Your task to perform on an android device: Open Google Maps and go to "Timeline" Image 0: 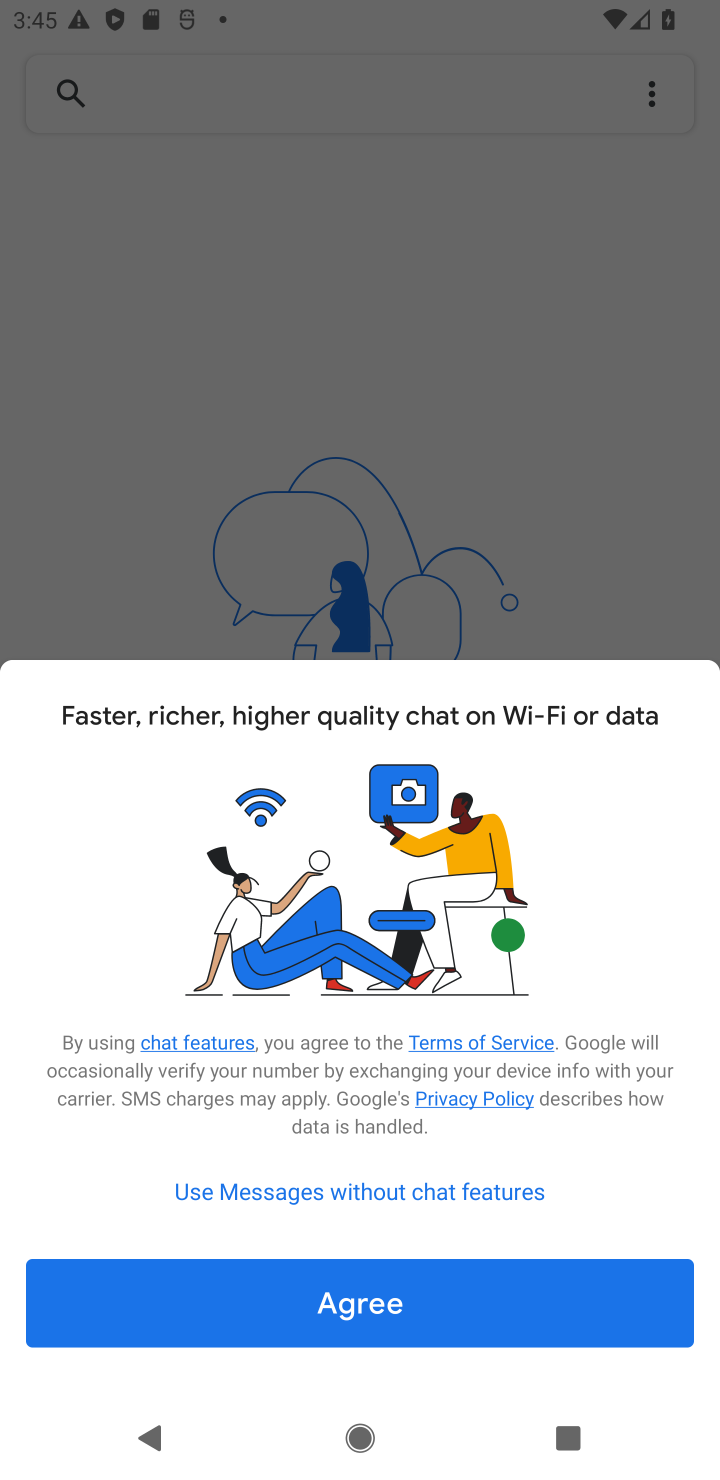
Step 0: press back button
Your task to perform on an android device: Open Google Maps and go to "Timeline" Image 1: 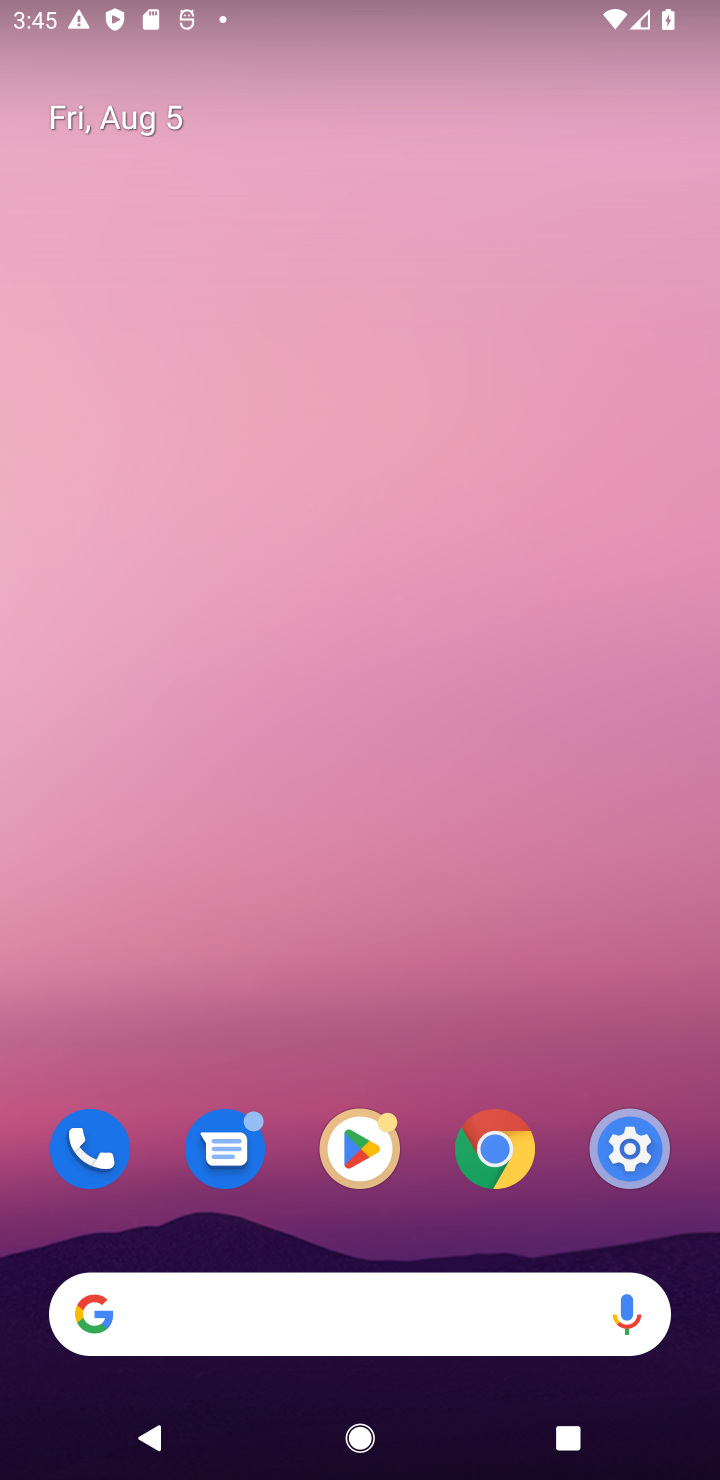
Step 1: press back button
Your task to perform on an android device: Open Google Maps and go to "Timeline" Image 2: 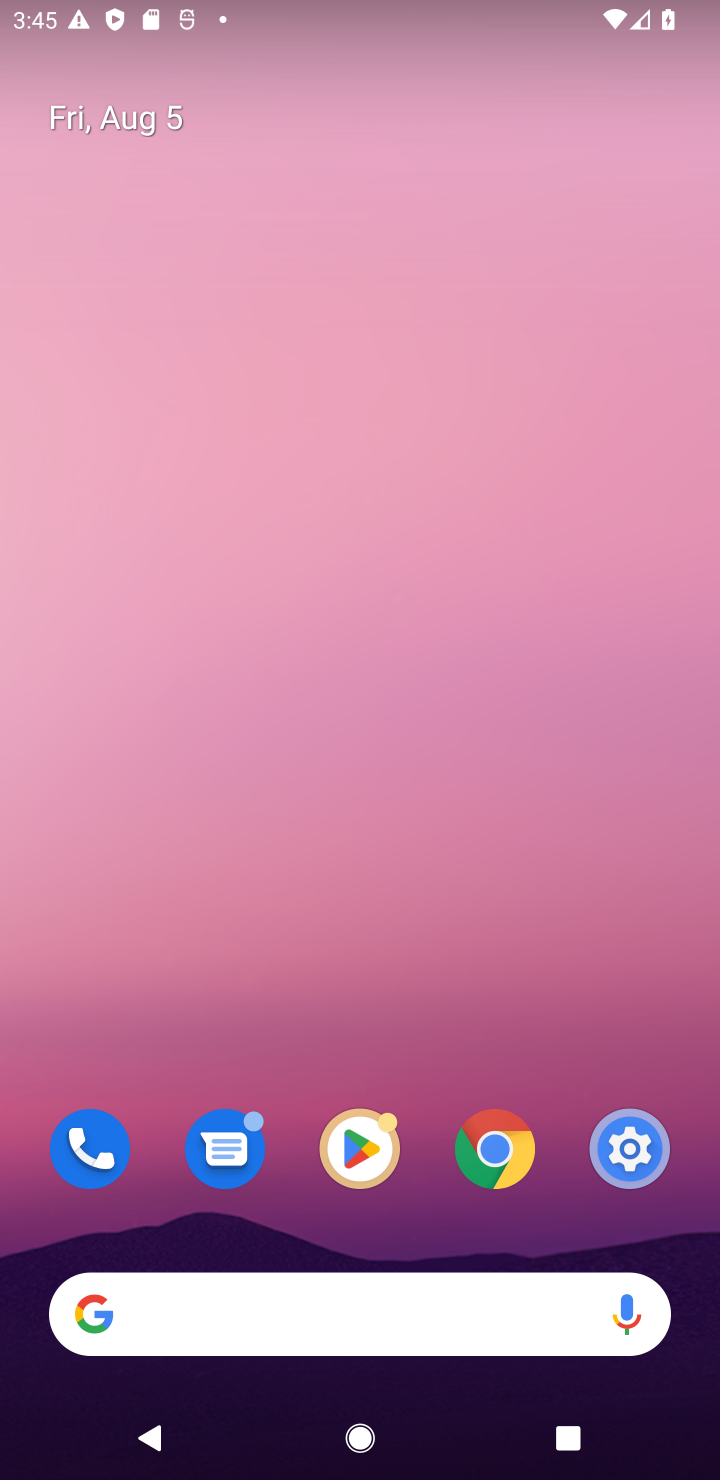
Step 2: drag from (385, 579) to (454, 42)
Your task to perform on an android device: Open Google Maps and go to "Timeline" Image 3: 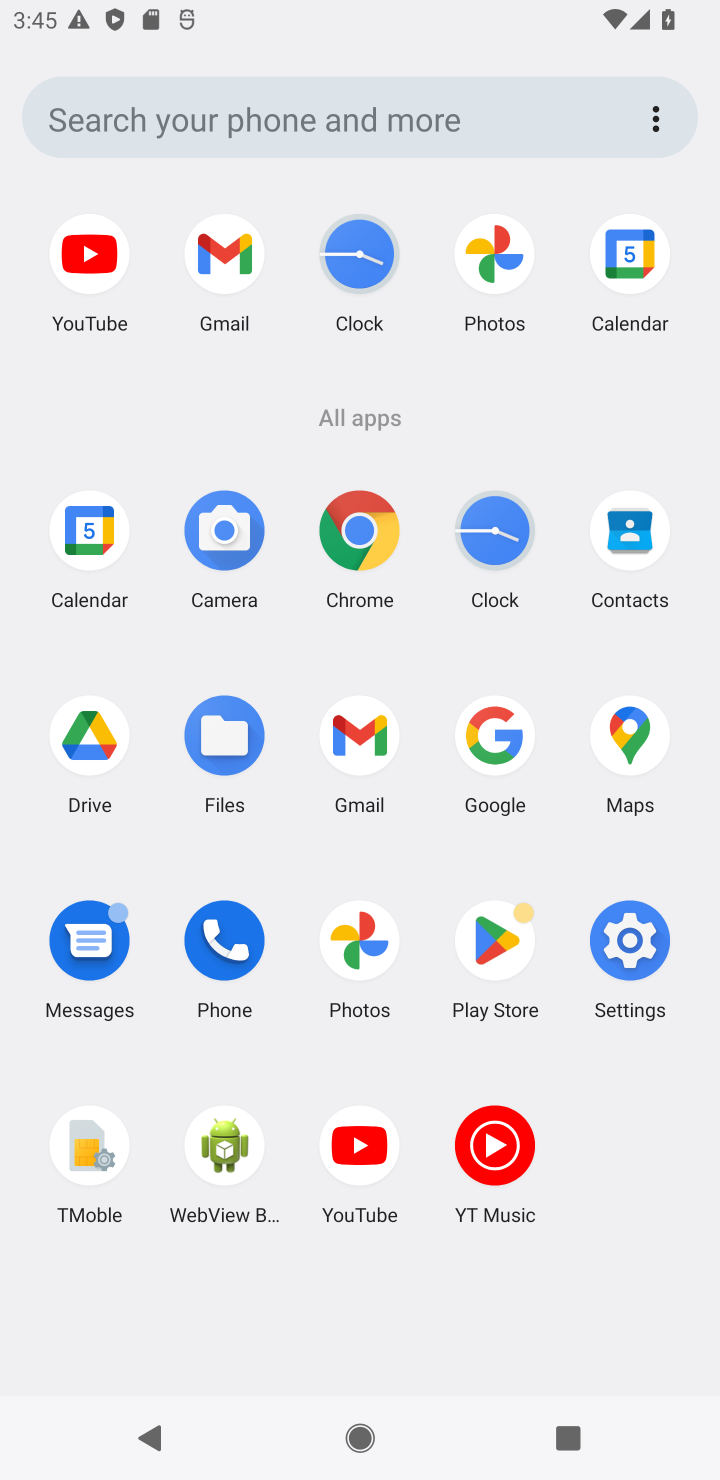
Step 3: click (631, 745)
Your task to perform on an android device: Open Google Maps and go to "Timeline" Image 4: 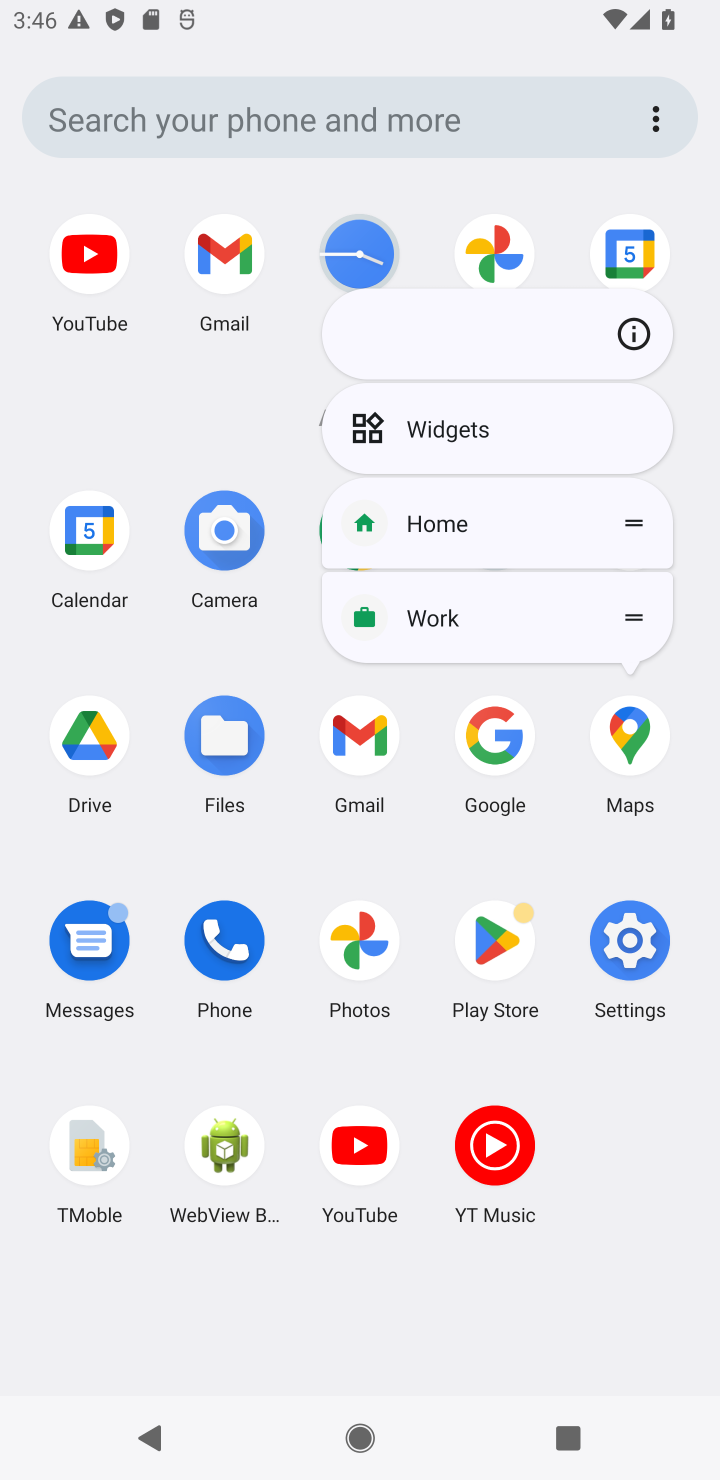
Step 4: click (636, 733)
Your task to perform on an android device: Open Google Maps and go to "Timeline" Image 5: 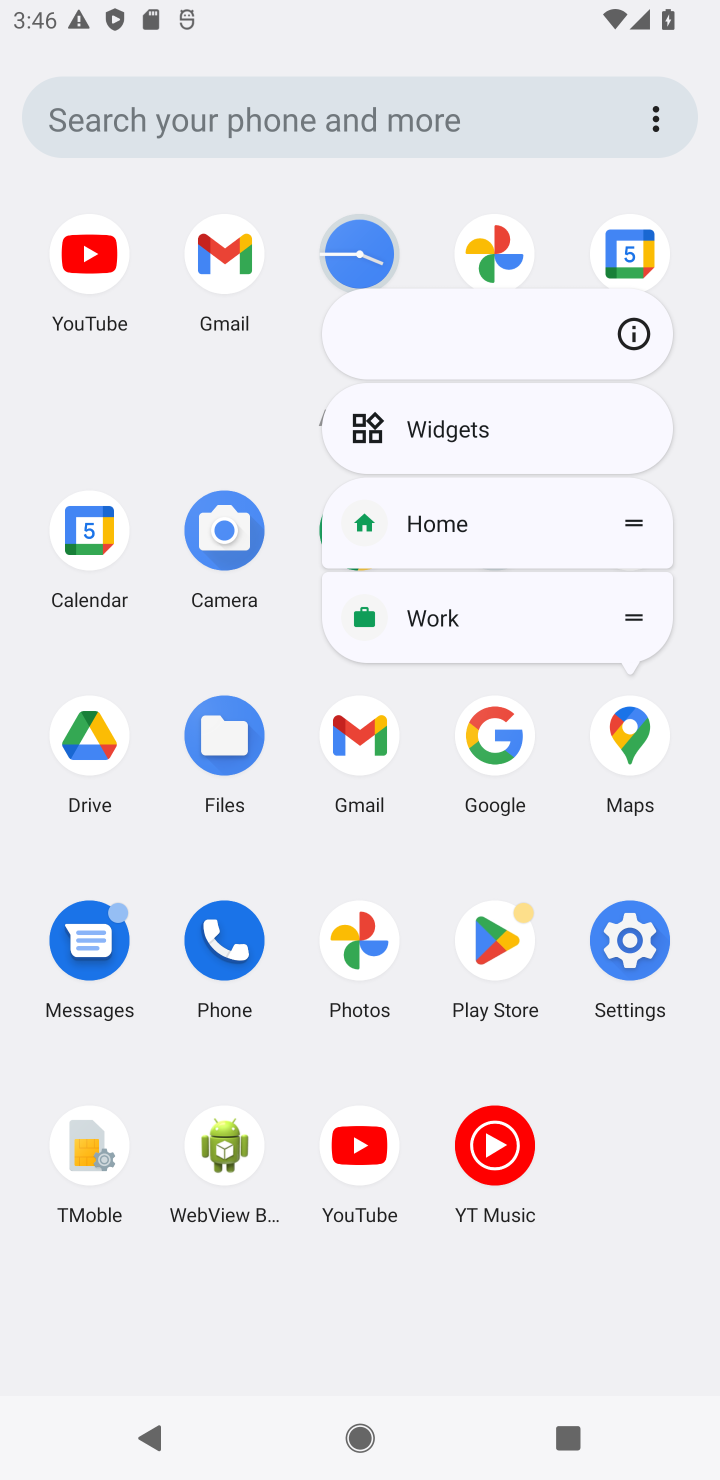
Step 5: click (634, 724)
Your task to perform on an android device: Open Google Maps and go to "Timeline" Image 6: 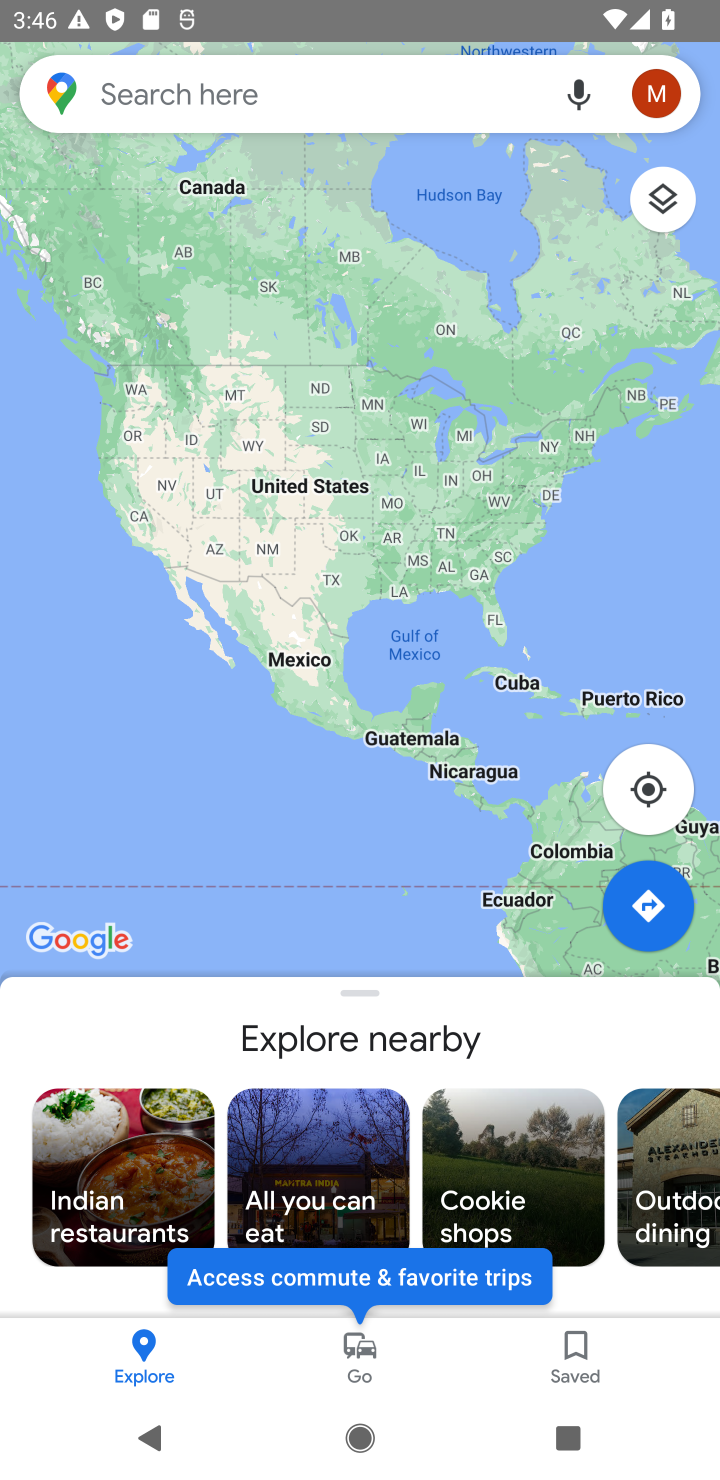
Step 6: click (645, 89)
Your task to perform on an android device: Open Google Maps and go to "Timeline" Image 7: 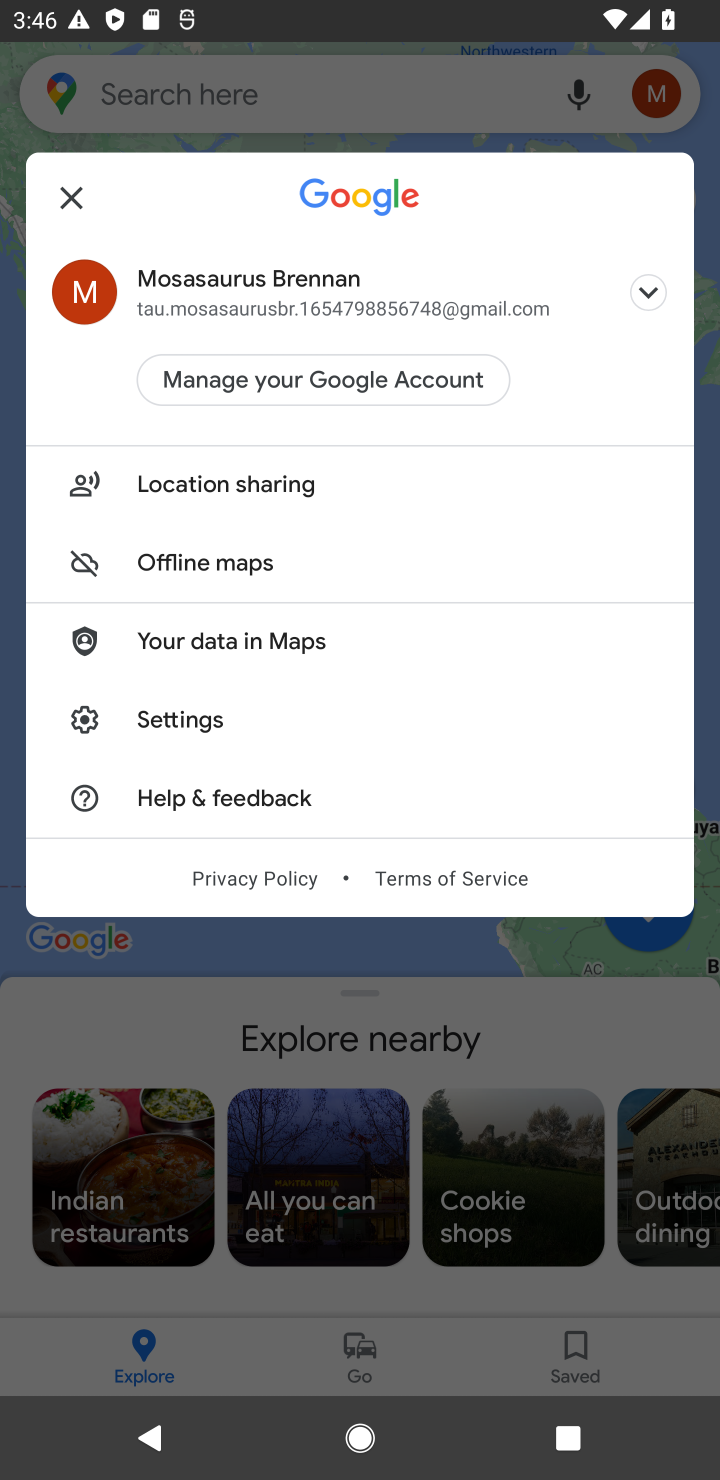
Step 7: click (91, 948)
Your task to perform on an android device: Open Google Maps and go to "Timeline" Image 8: 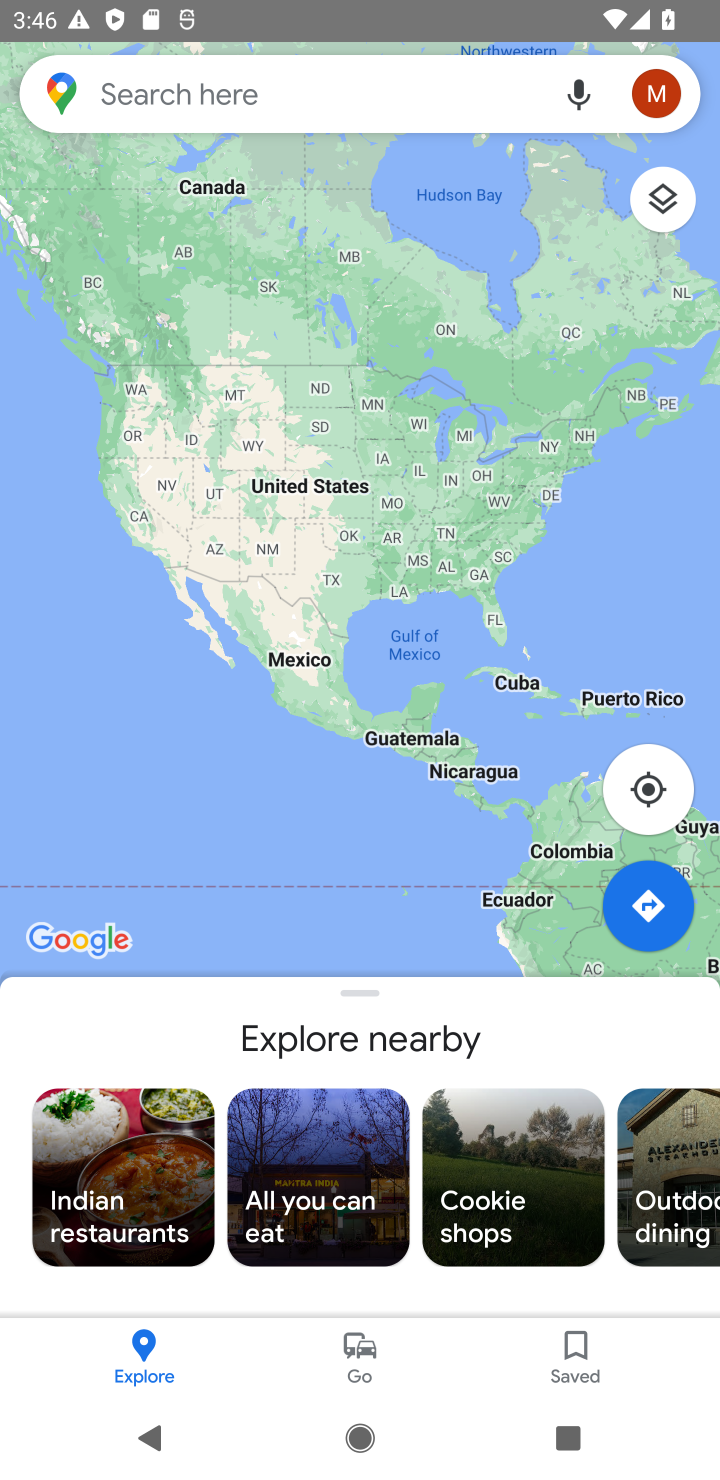
Step 8: click (654, 84)
Your task to perform on an android device: Open Google Maps and go to "Timeline" Image 9: 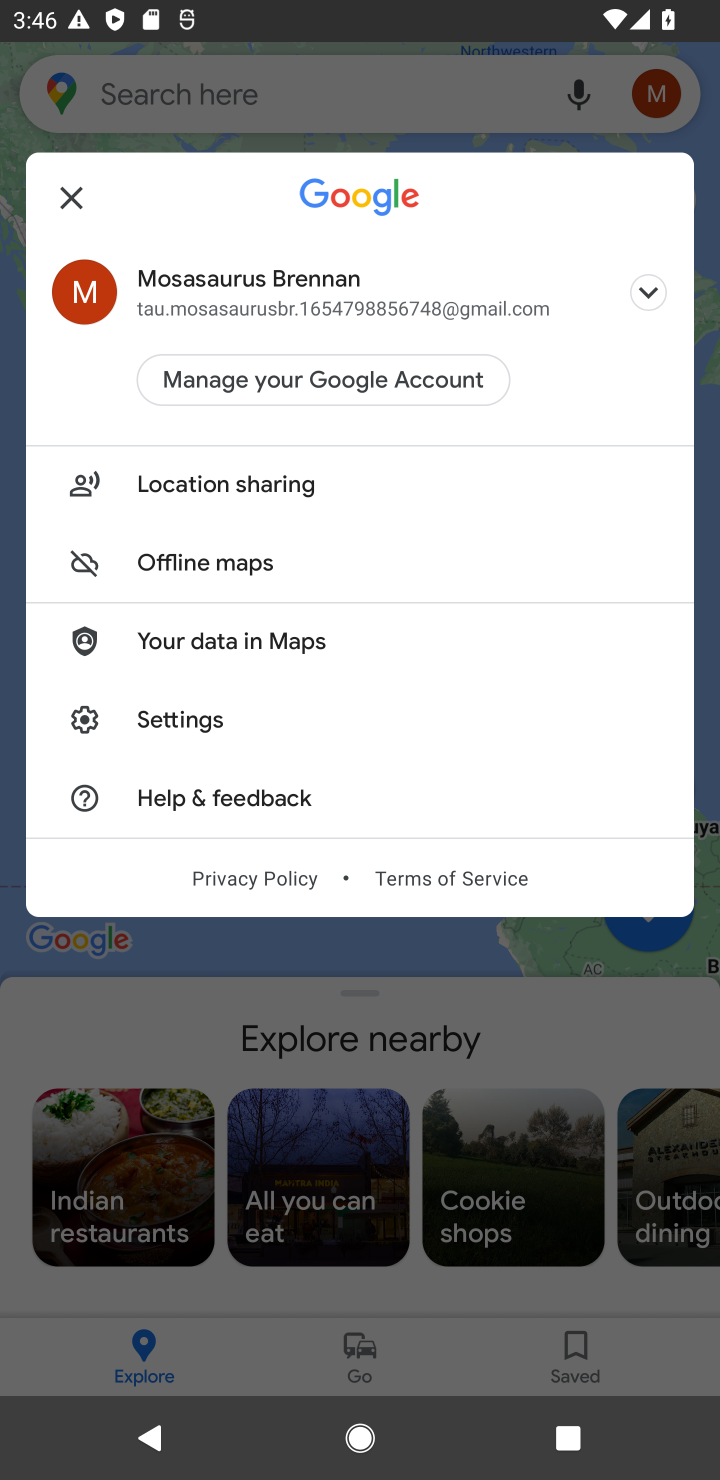
Step 9: task complete